Your task to perform on an android device: What's the weather going to be tomorrow? Image 0: 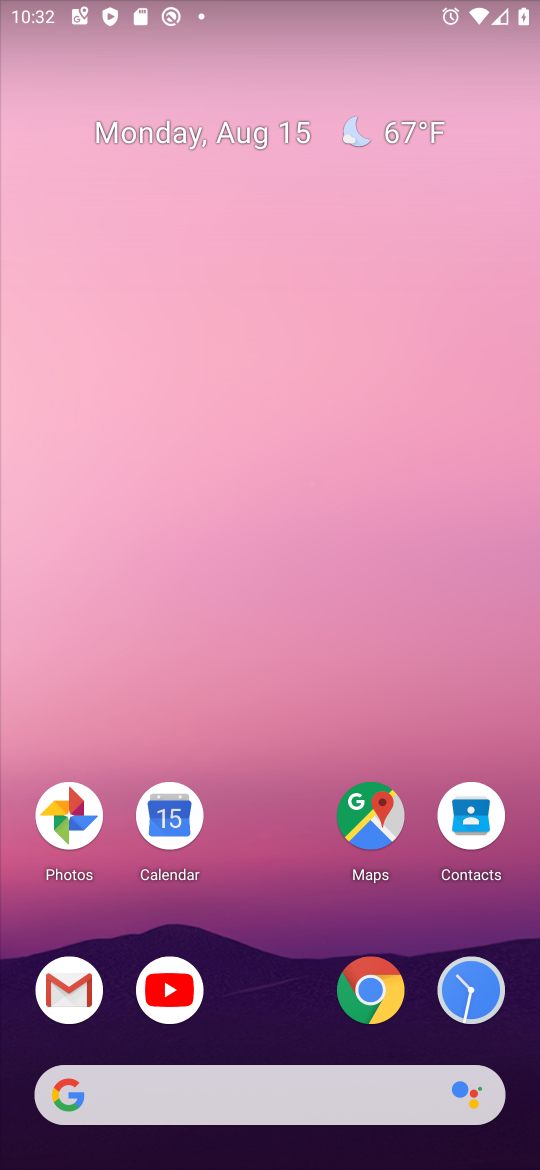
Step 0: click (257, 1072)
Your task to perform on an android device: What's the weather going to be tomorrow? Image 1: 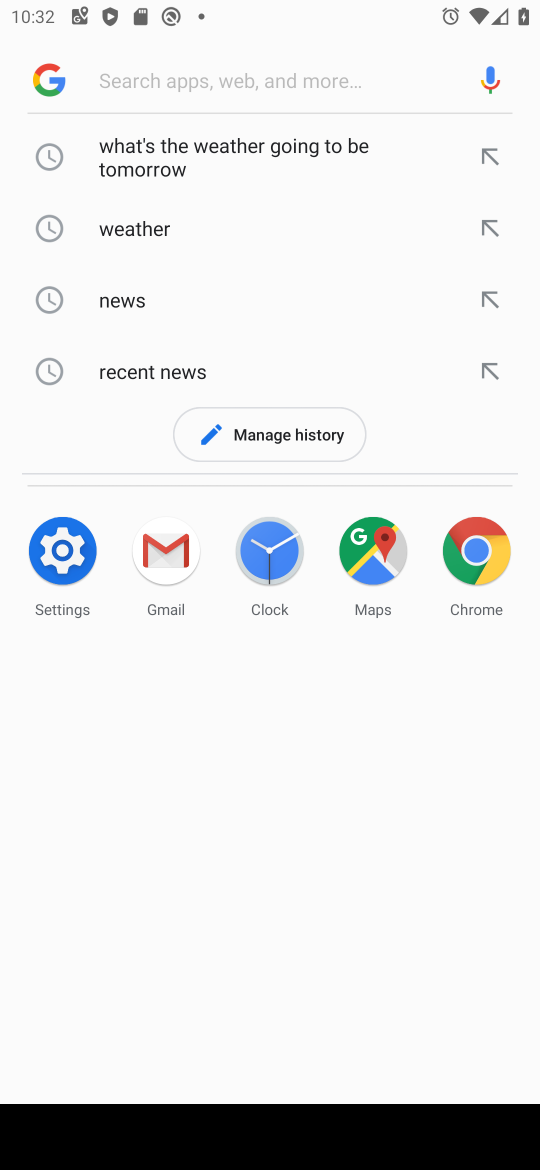
Step 1: click (147, 151)
Your task to perform on an android device: What's the weather going to be tomorrow? Image 2: 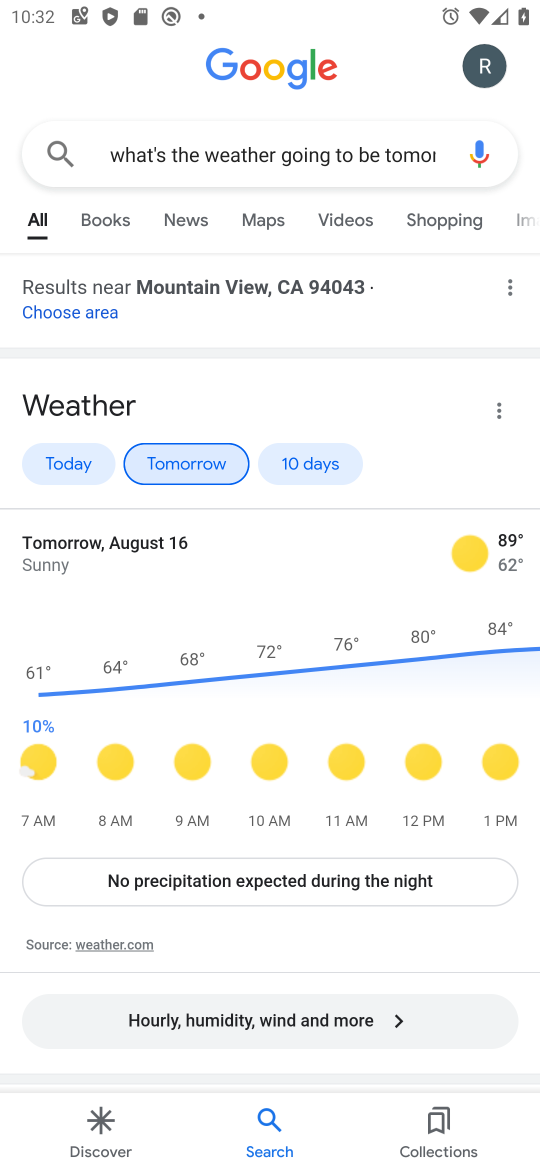
Step 2: task complete